Your task to perform on an android device: open app "PlayWell" (install if not already installed) and enter user name: "metric@gmail.com" and password: "bumblebee" Image 0: 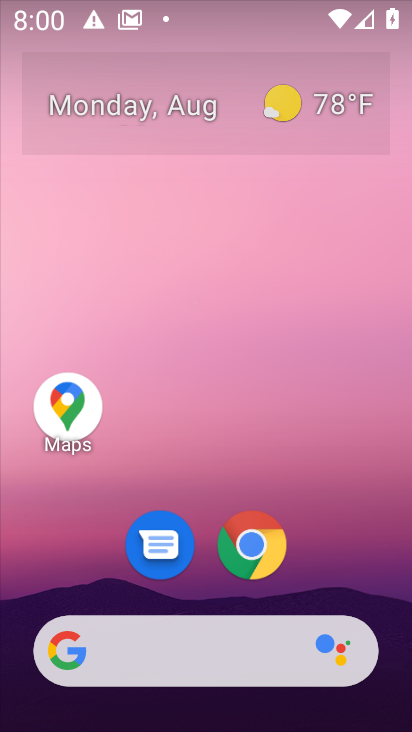
Step 0: press home button
Your task to perform on an android device: open app "PlayWell" (install if not already installed) and enter user name: "metric@gmail.com" and password: "bumblebee" Image 1: 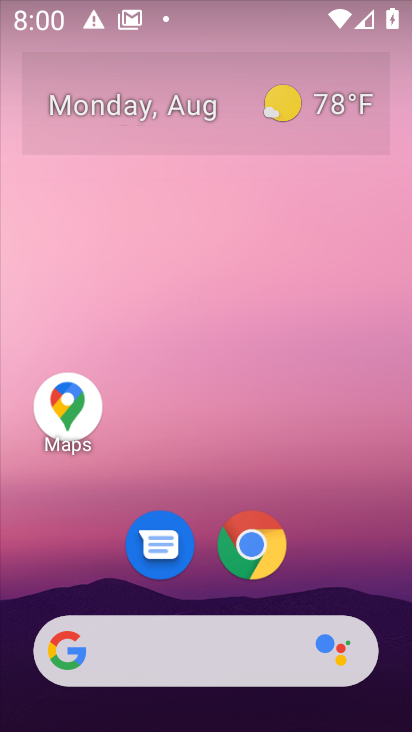
Step 1: drag from (346, 580) to (366, 113)
Your task to perform on an android device: open app "PlayWell" (install if not already installed) and enter user name: "metric@gmail.com" and password: "bumblebee" Image 2: 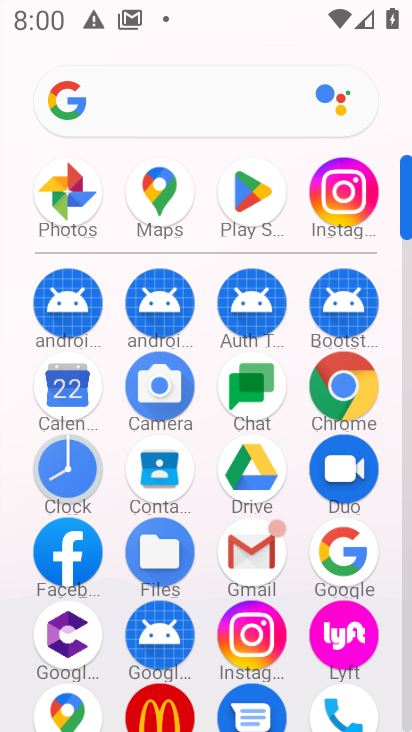
Step 2: click (256, 202)
Your task to perform on an android device: open app "PlayWell" (install if not already installed) and enter user name: "metric@gmail.com" and password: "bumblebee" Image 3: 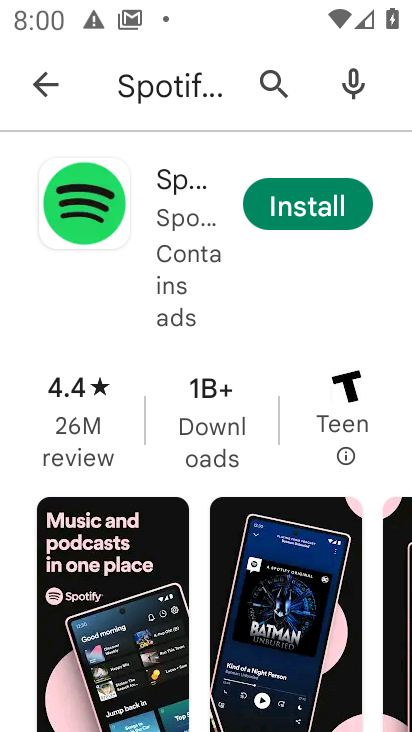
Step 3: press back button
Your task to perform on an android device: open app "PlayWell" (install if not already installed) and enter user name: "metric@gmail.com" and password: "bumblebee" Image 4: 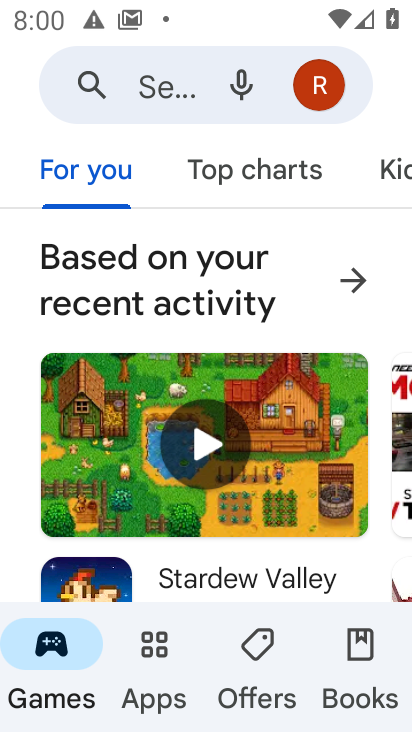
Step 4: click (154, 90)
Your task to perform on an android device: open app "PlayWell" (install if not already installed) and enter user name: "metric@gmail.com" and password: "bumblebee" Image 5: 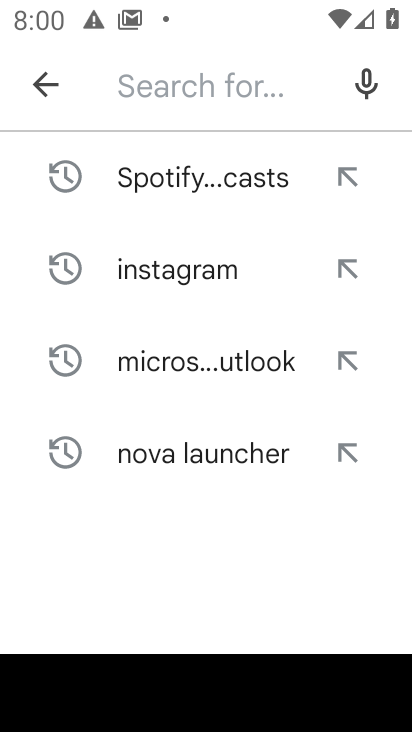
Step 5: type "PlayWell"
Your task to perform on an android device: open app "PlayWell" (install if not already installed) and enter user name: "metric@gmail.com" and password: "bumblebee" Image 6: 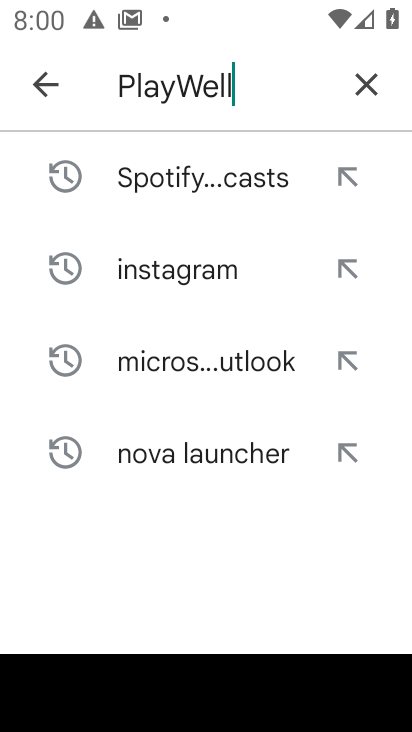
Step 6: press enter
Your task to perform on an android device: open app "PlayWell" (install if not already installed) and enter user name: "metric@gmail.com" and password: "bumblebee" Image 7: 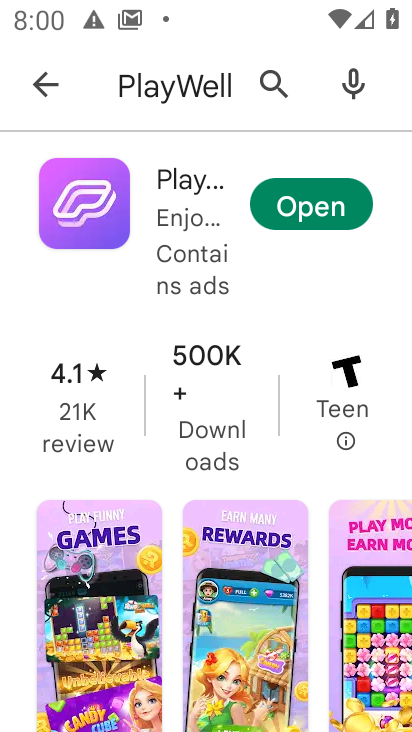
Step 7: click (311, 215)
Your task to perform on an android device: open app "PlayWell" (install if not already installed) and enter user name: "metric@gmail.com" and password: "bumblebee" Image 8: 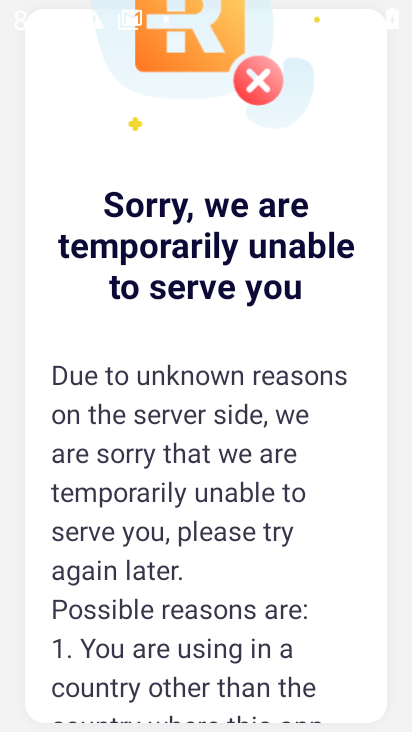
Step 8: task complete